Your task to perform on an android device: Open Google Maps and go to "Timeline" Image 0: 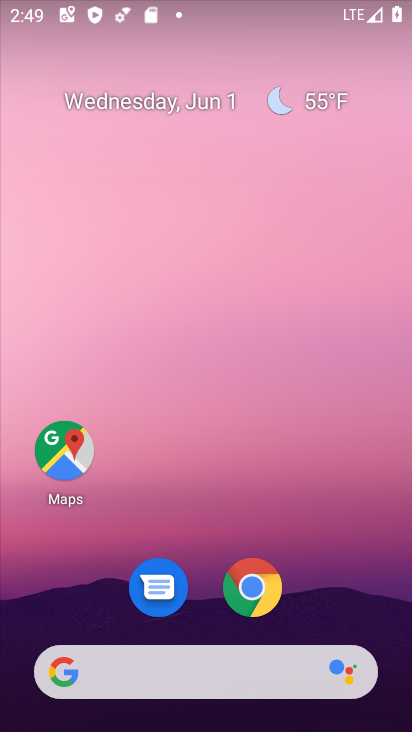
Step 0: click (46, 454)
Your task to perform on an android device: Open Google Maps and go to "Timeline" Image 1: 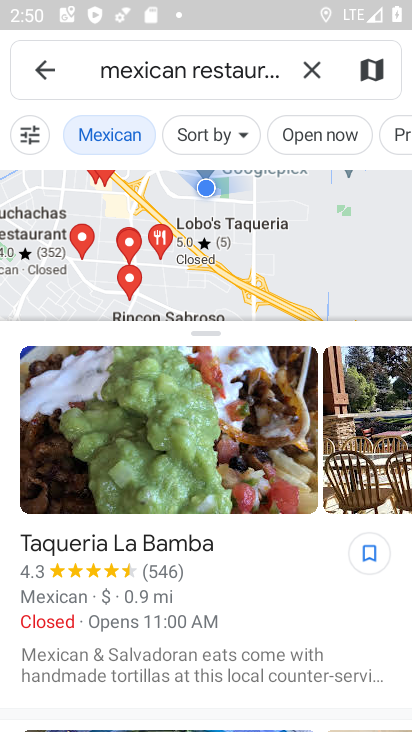
Step 1: click (44, 58)
Your task to perform on an android device: Open Google Maps and go to "Timeline" Image 2: 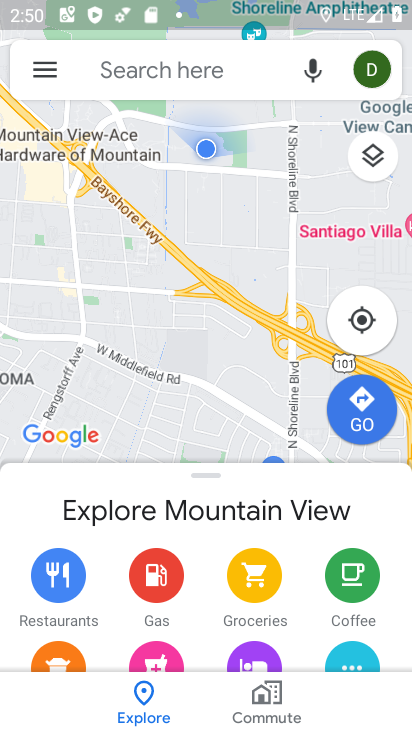
Step 2: click (44, 58)
Your task to perform on an android device: Open Google Maps and go to "Timeline" Image 3: 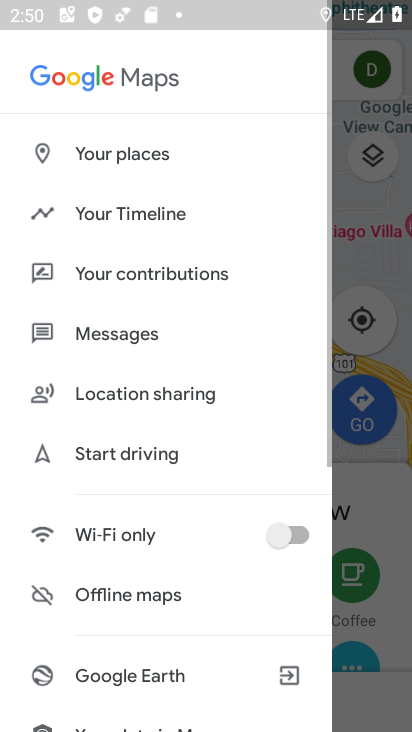
Step 3: click (104, 206)
Your task to perform on an android device: Open Google Maps and go to "Timeline" Image 4: 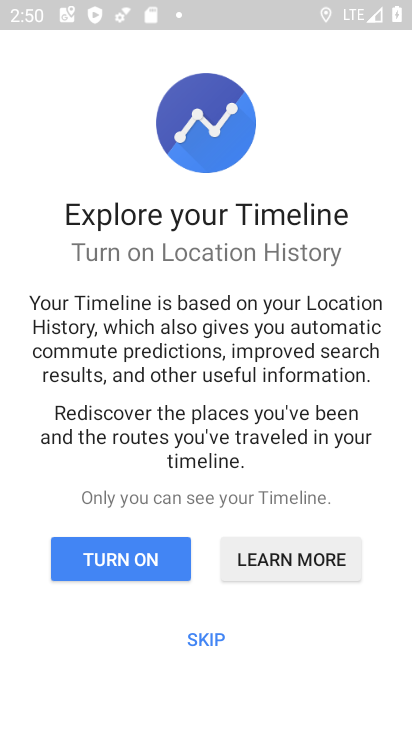
Step 4: task complete